Your task to perform on an android device: When is my next meeting? Image 0: 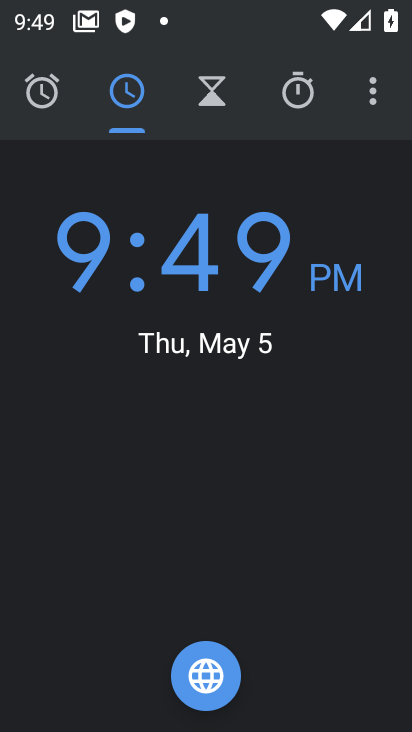
Step 0: press home button
Your task to perform on an android device: When is my next meeting? Image 1: 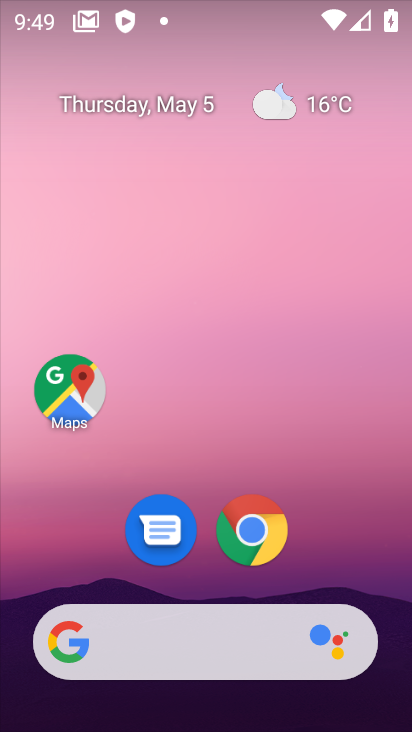
Step 1: drag from (359, 605) to (158, 258)
Your task to perform on an android device: When is my next meeting? Image 2: 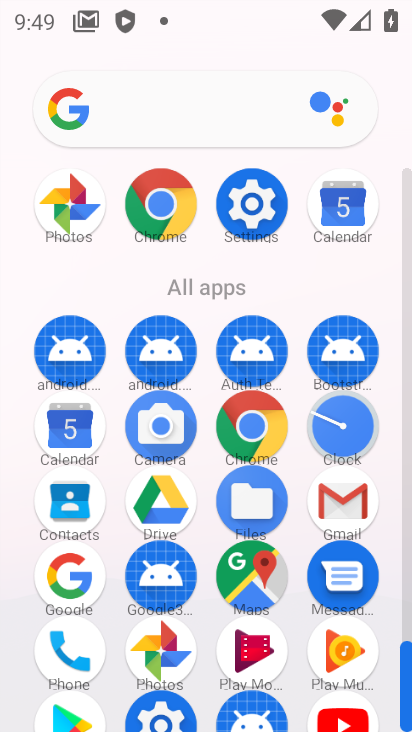
Step 2: click (79, 425)
Your task to perform on an android device: When is my next meeting? Image 3: 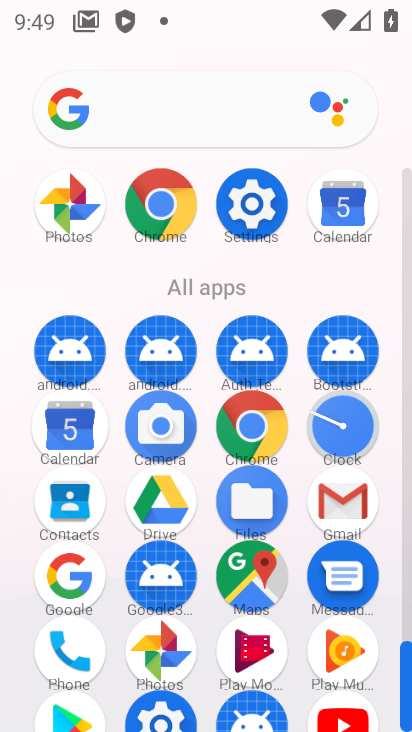
Step 3: click (79, 425)
Your task to perform on an android device: When is my next meeting? Image 4: 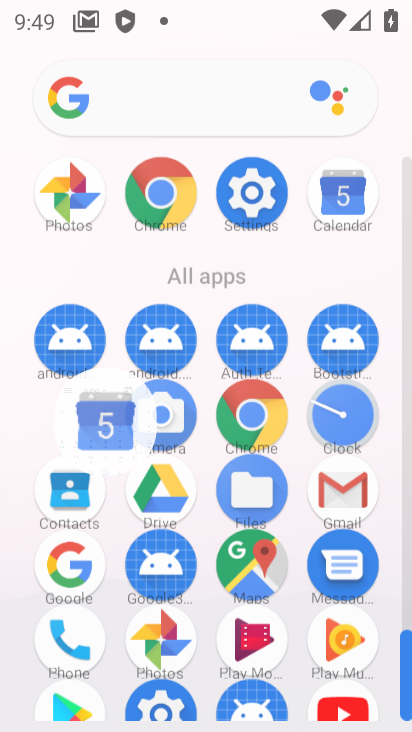
Step 4: click (79, 425)
Your task to perform on an android device: When is my next meeting? Image 5: 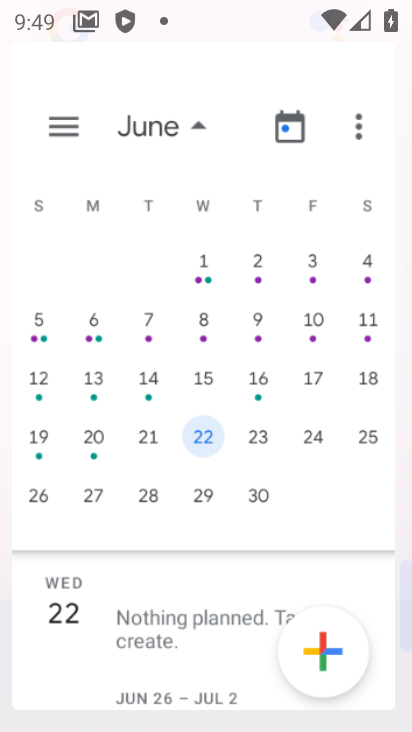
Step 5: click (76, 423)
Your task to perform on an android device: When is my next meeting? Image 6: 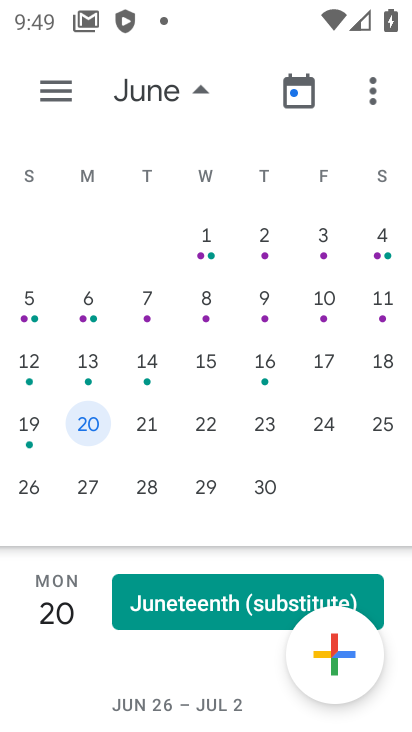
Step 6: drag from (108, 362) to (411, 365)
Your task to perform on an android device: When is my next meeting? Image 7: 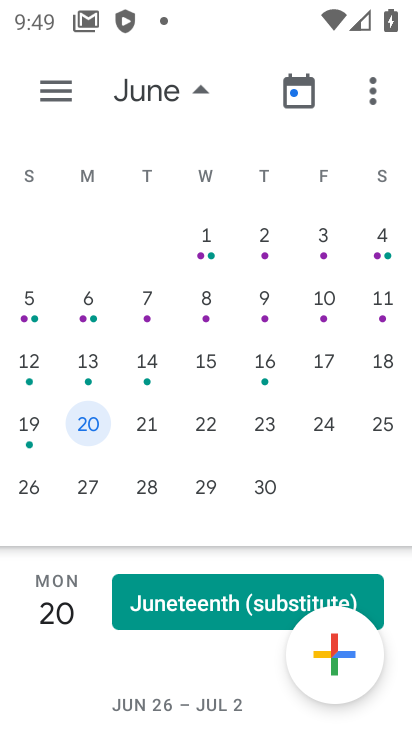
Step 7: drag from (107, 390) to (312, 595)
Your task to perform on an android device: When is my next meeting? Image 8: 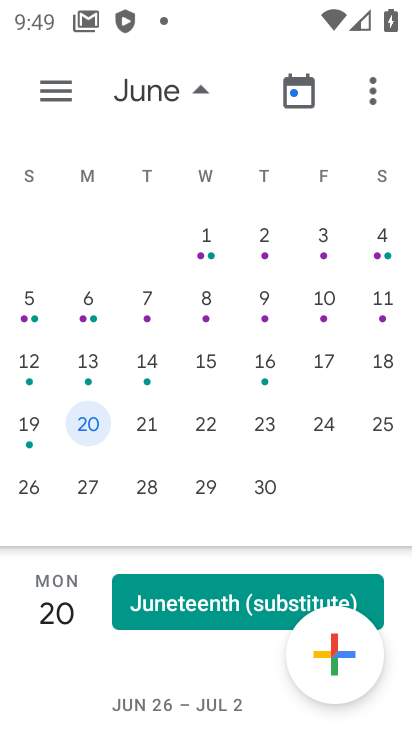
Step 8: drag from (81, 381) to (411, 363)
Your task to perform on an android device: When is my next meeting? Image 9: 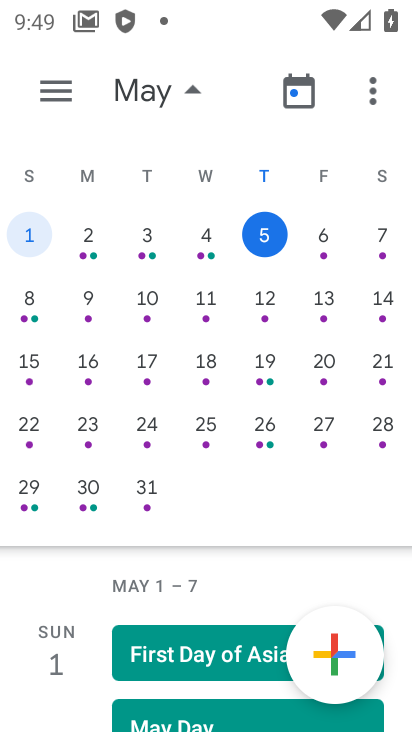
Step 9: drag from (184, 605) to (200, 112)
Your task to perform on an android device: When is my next meeting? Image 10: 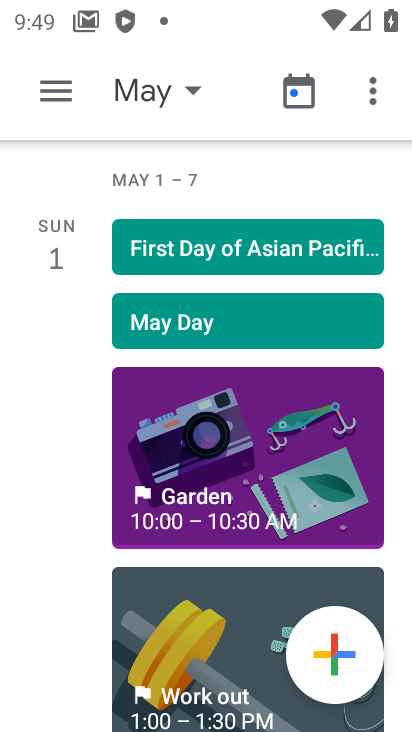
Step 10: drag from (168, 617) to (172, 136)
Your task to perform on an android device: When is my next meeting? Image 11: 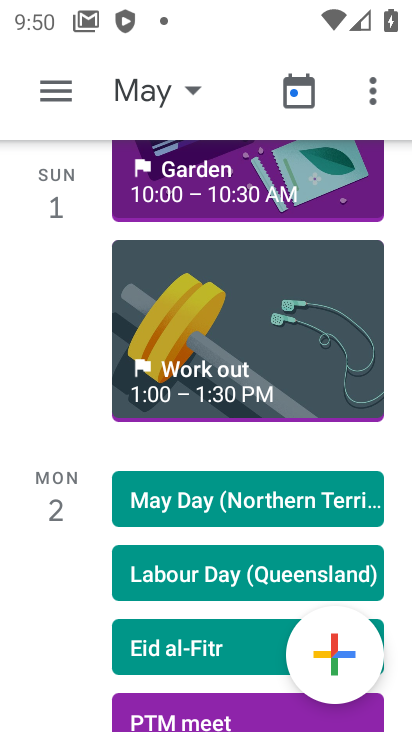
Step 11: drag from (178, 582) to (112, 93)
Your task to perform on an android device: When is my next meeting? Image 12: 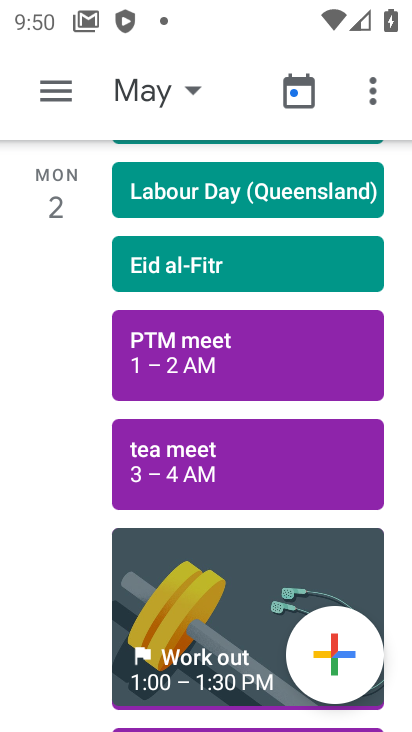
Step 12: drag from (183, 532) to (167, 72)
Your task to perform on an android device: When is my next meeting? Image 13: 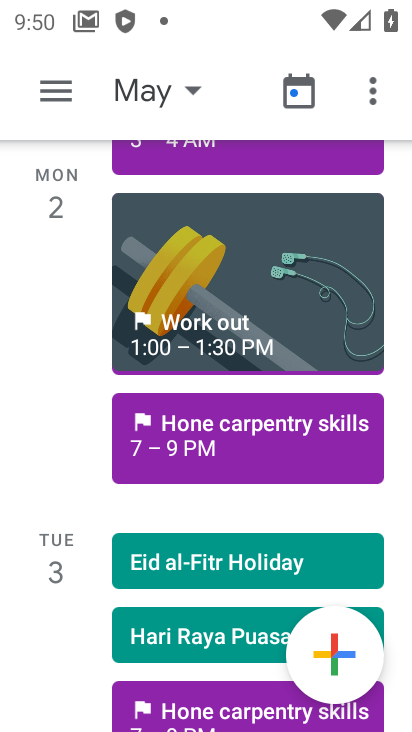
Step 13: drag from (180, 556) to (100, 125)
Your task to perform on an android device: When is my next meeting? Image 14: 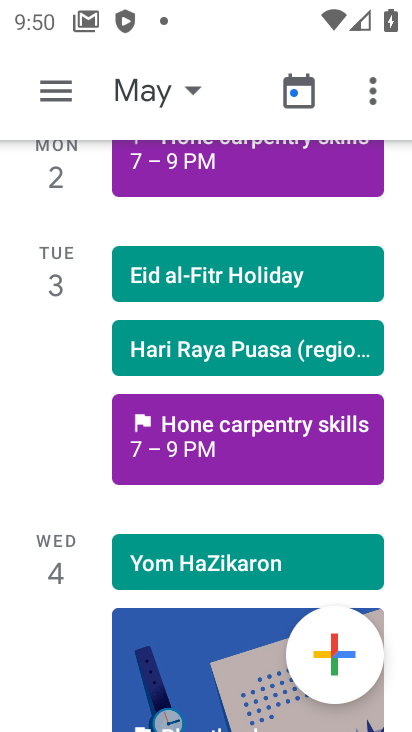
Step 14: drag from (224, 598) to (280, 0)
Your task to perform on an android device: When is my next meeting? Image 15: 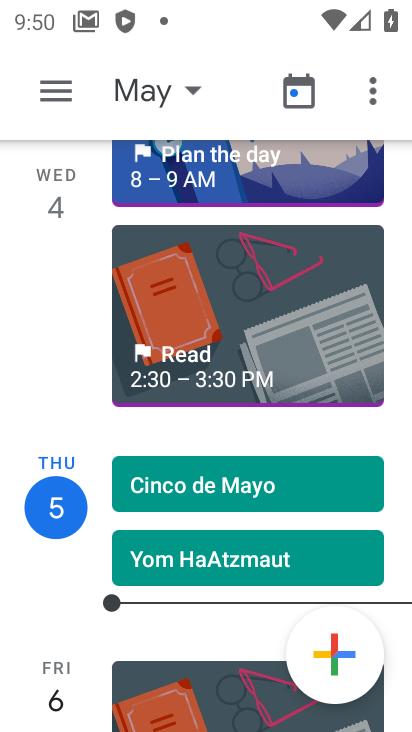
Step 15: drag from (217, 574) to (126, 75)
Your task to perform on an android device: When is my next meeting? Image 16: 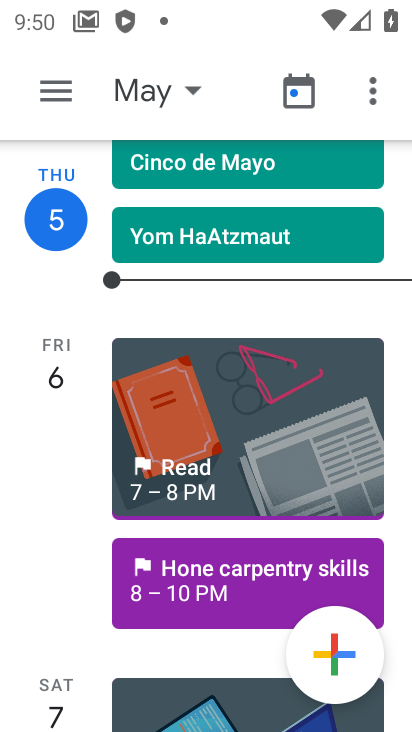
Step 16: drag from (190, 535) to (166, 118)
Your task to perform on an android device: When is my next meeting? Image 17: 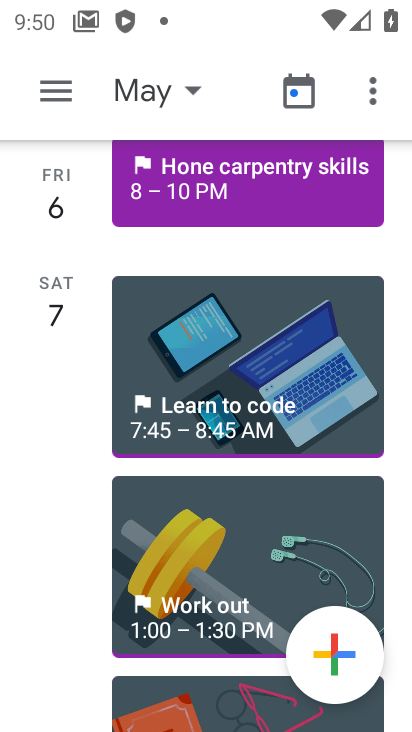
Step 17: drag from (167, 680) to (122, 234)
Your task to perform on an android device: When is my next meeting? Image 18: 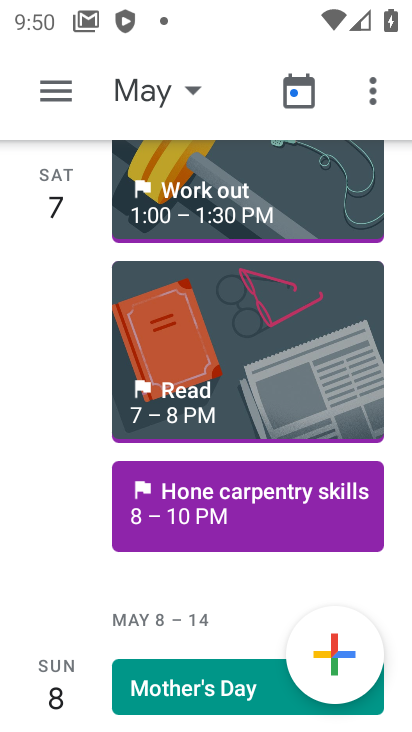
Step 18: drag from (182, 604) to (179, 109)
Your task to perform on an android device: When is my next meeting? Image 19: 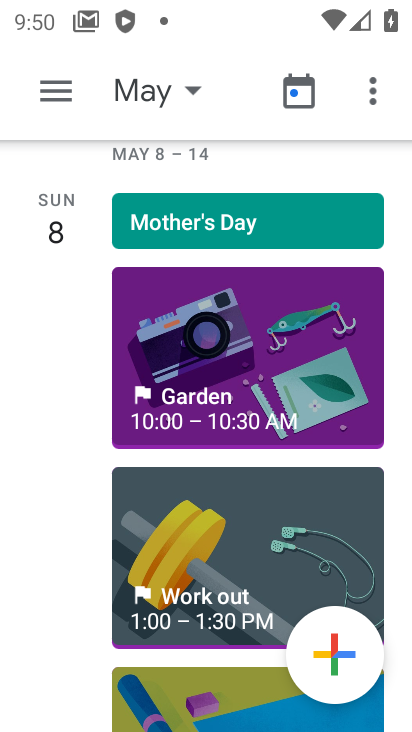
Step 19: drag from (191, 634) to (198, 2)
Your task to perform on an android device: When is my next meeting? Image 20: 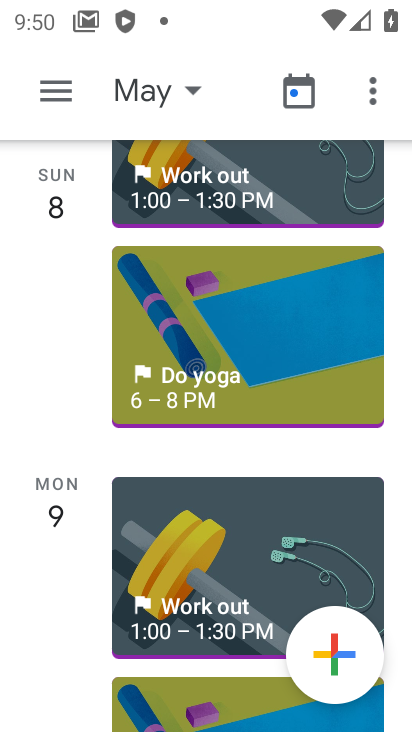
Step 20: drag from (222, 547) to (211, 185)
Your task to perform on an android device: When is my next meeting? Image 21: 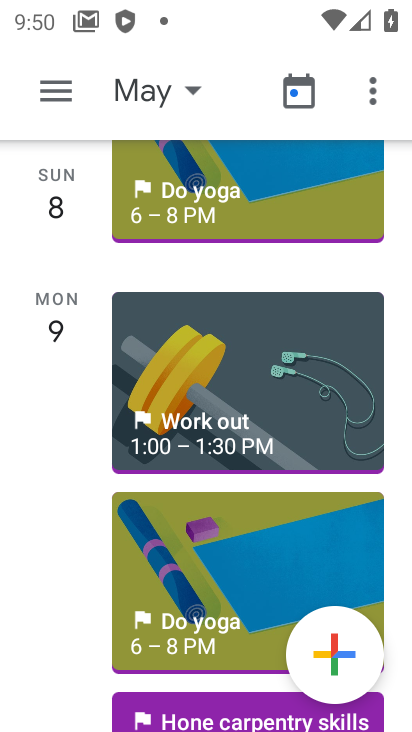
Step 21: drag from (208, 625) to (155, 186)
Your task to perform on an android device: When is my next meeting? Image 22: 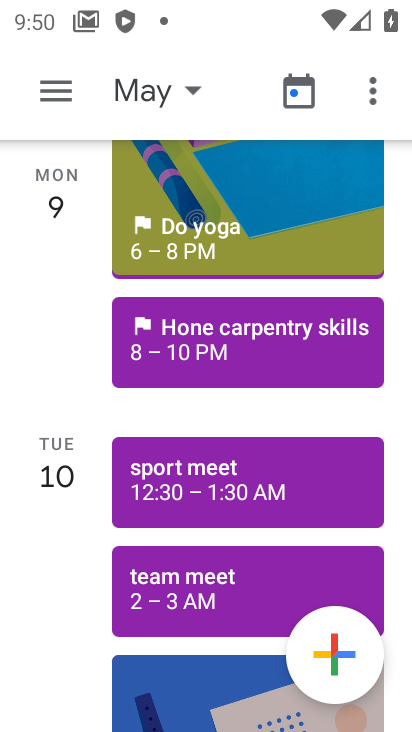
Step 22: drag from (156, 479) to (125, 96)
Your task to perform on an android device: When is my next meeting? Image 23: 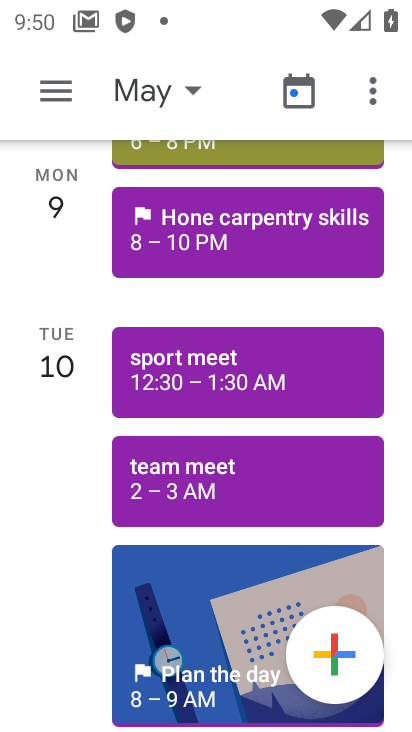
Step 23: drag from (214, 470) to (222, 81)
Your task to perform on an android device: When is my next meeting? Image 24: 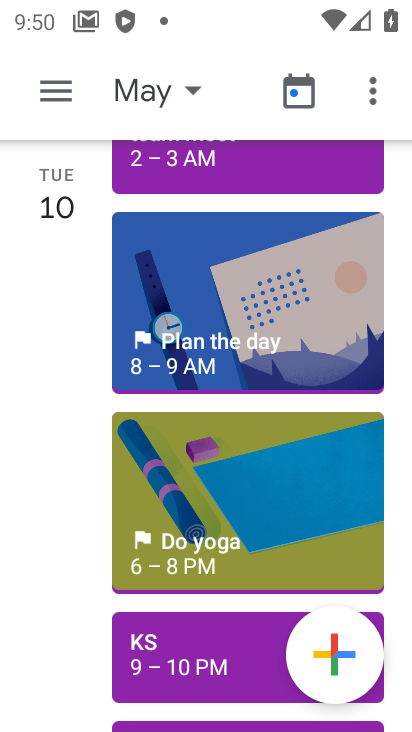
Step 24: drag from (162, 498) to (119, 8)
Your task to perform on an android device: When is my next meeting? Image 25: 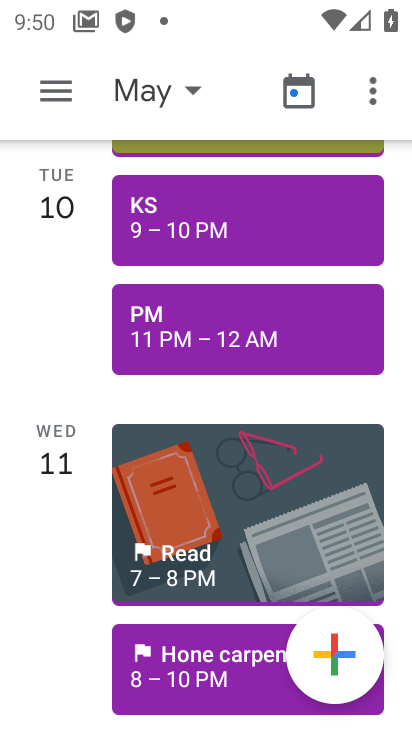
Step 25: click (189, 527)
Your task to perform on an android device: When is my next meeting? Image 26: 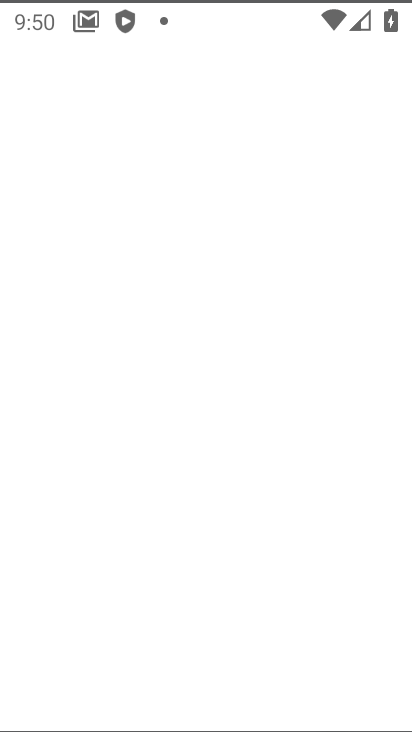
Step 26: click (188, 526)
Your task to perform on an android device: When is my next meeting? Image 27: 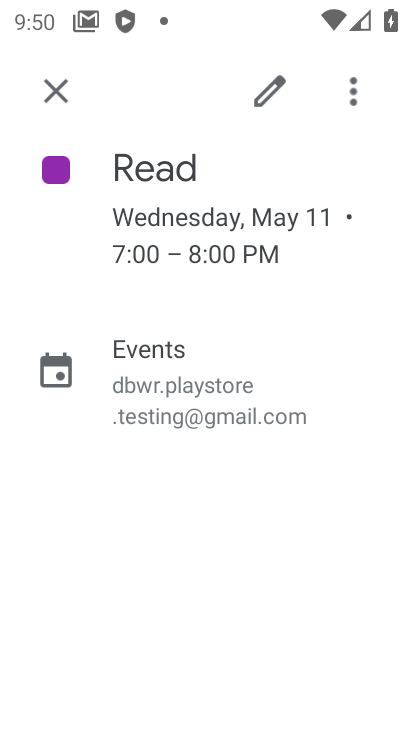
Step 27: click (188, 526)
Your task to perform on an android device: When is my next meeting? Image 28: 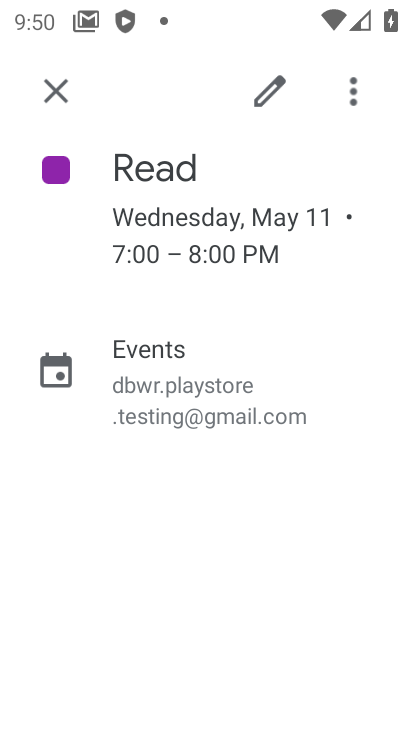
Step 28: task complete